Your task to perform on an android device: Open Chrome and go to settings Image 0: 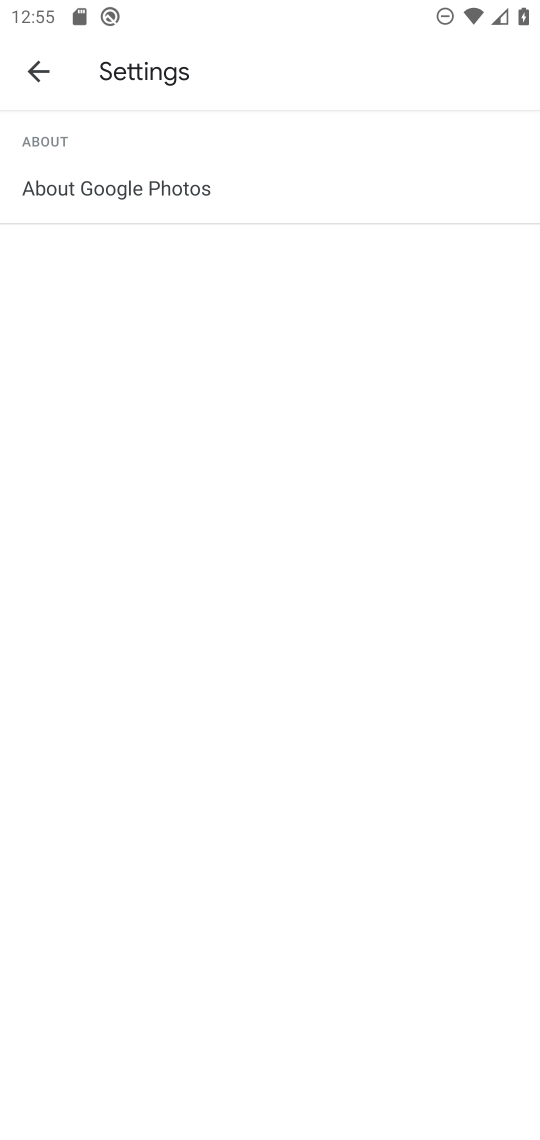
Step 0: press back button
Your task to perform on an android device: Open Chrome and go to settings Image 1: 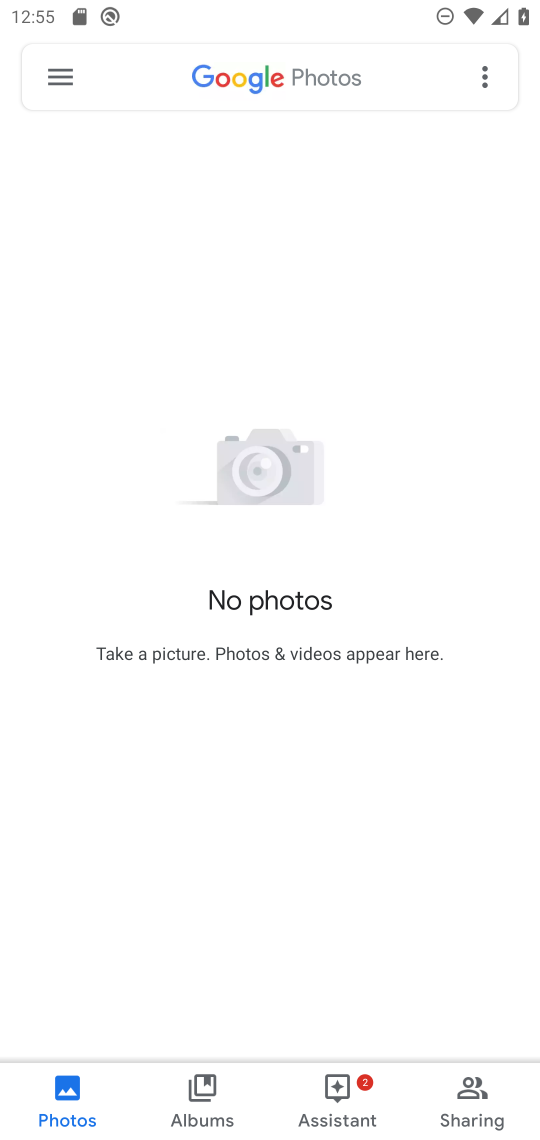
Step 1: press home button
Your task to perform on an android device: Open Chrome and go to settings Image 2: 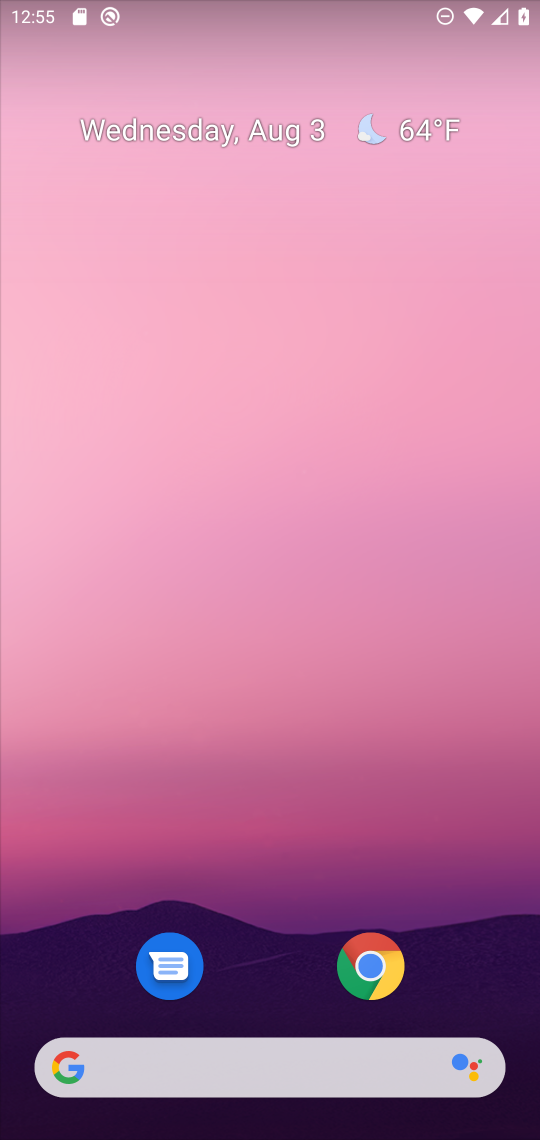
Step 2: click (351, 969)
Your task to perform on an android device: Open Chrome and go to settings Image 3: 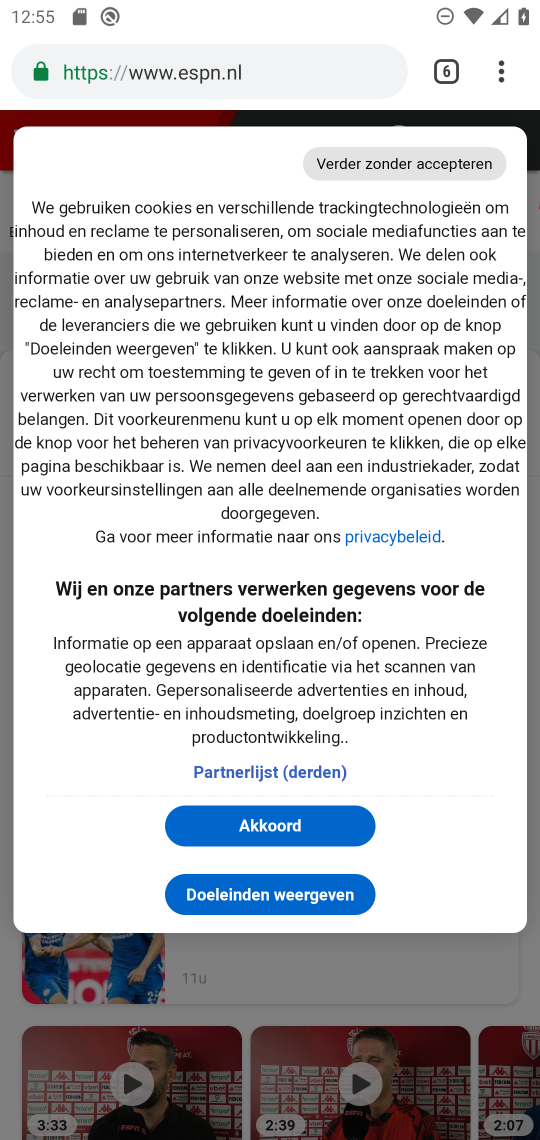
Step 3: click (497, 77)
Your task to perform on an android device: Open Chrome and go to settings Image 4: 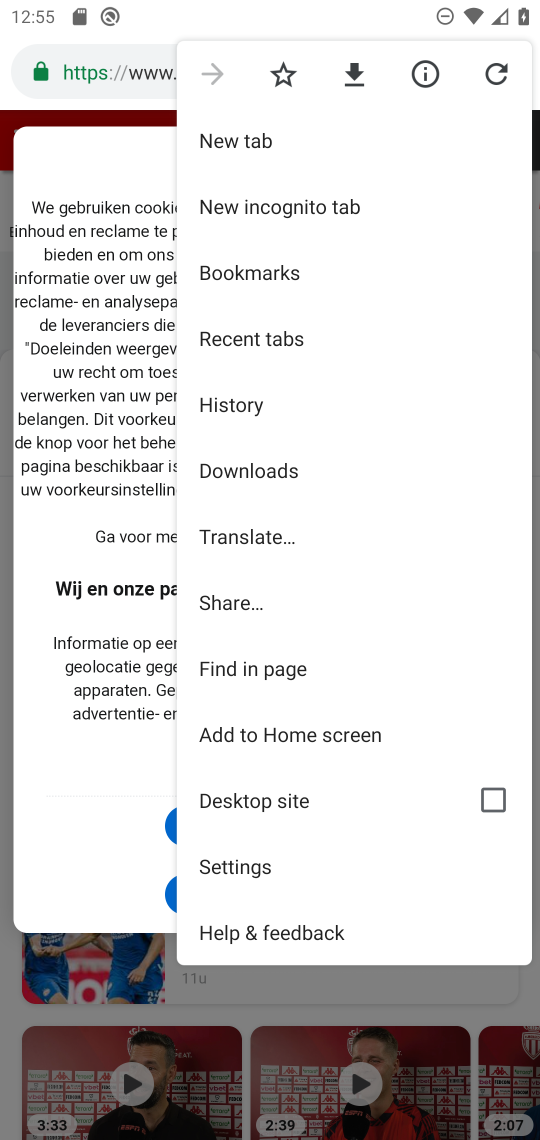
Step 4: click (288, 877)
Your task to perform on an android device: Open Chrome and go to settings Image 5: 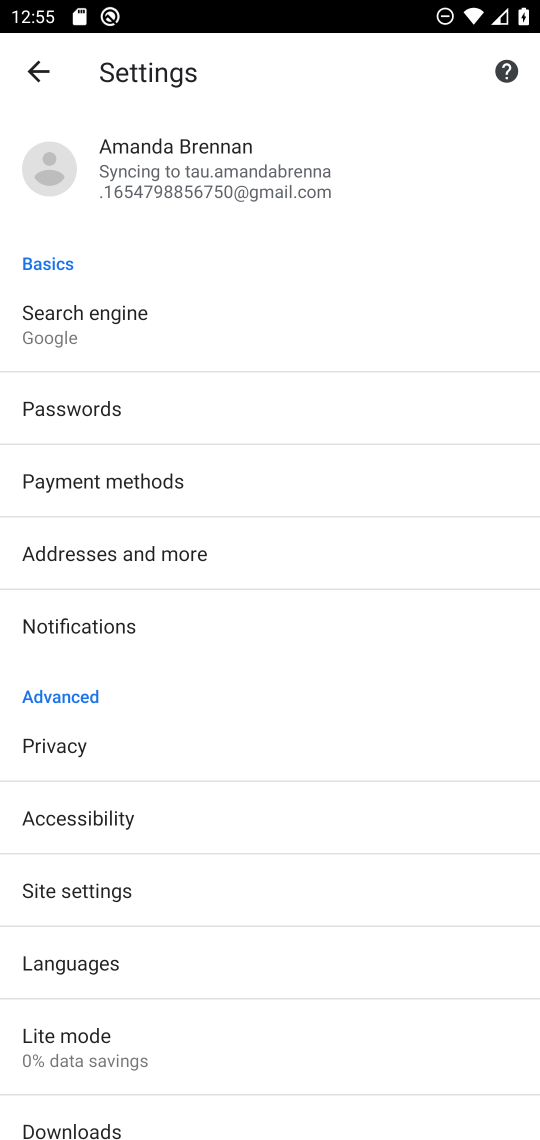
Step 5: task complete